Your task to perform on an android device: open device folders in google photos Image 0: 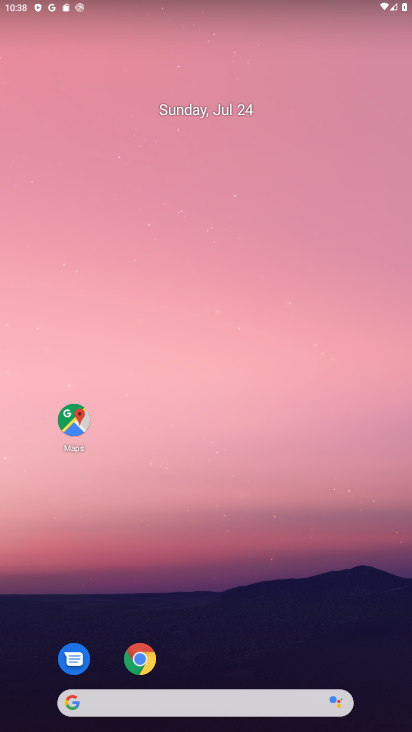
Step 0: drag from (198, 614) to (204, 257)
Your task to perform on an android device: open device folders in google photos Image 1: 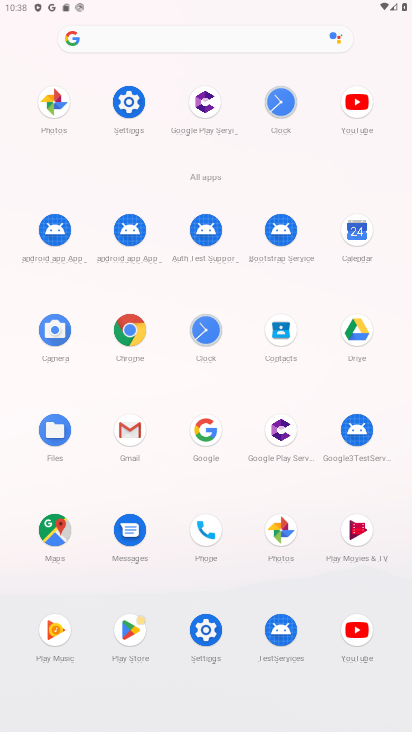
Step 1: click (271, 532)
Your task to perform on an android device: open device folders in google photos Image 2: 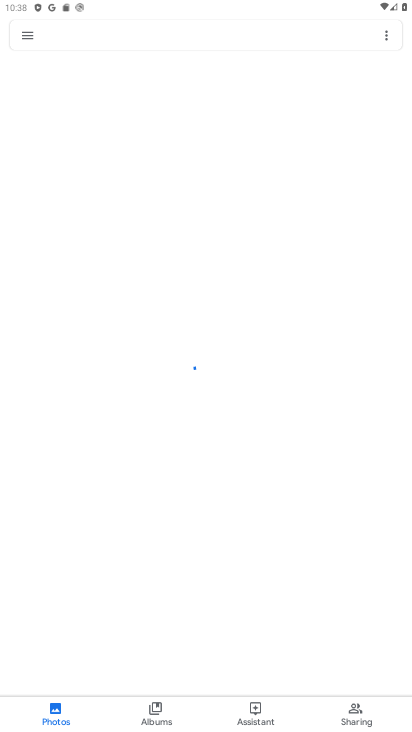
Step 2: click (162, 700)
Your task to perform on an android device: open device folders in google photos Image 3: 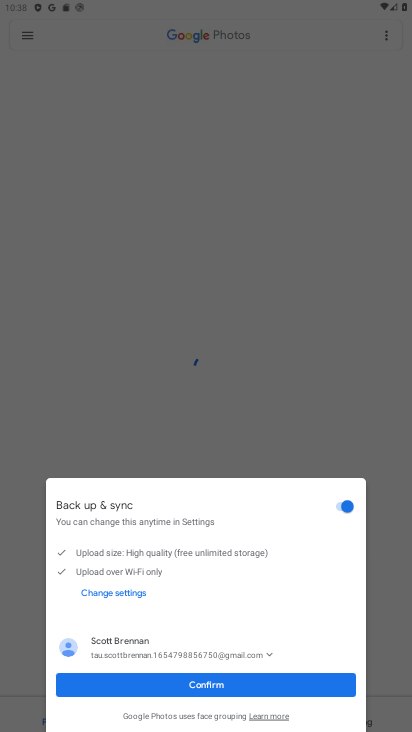
Step 3: click (193, 684)
Your task to perform on an android device: open device folders in google photos Image 4: 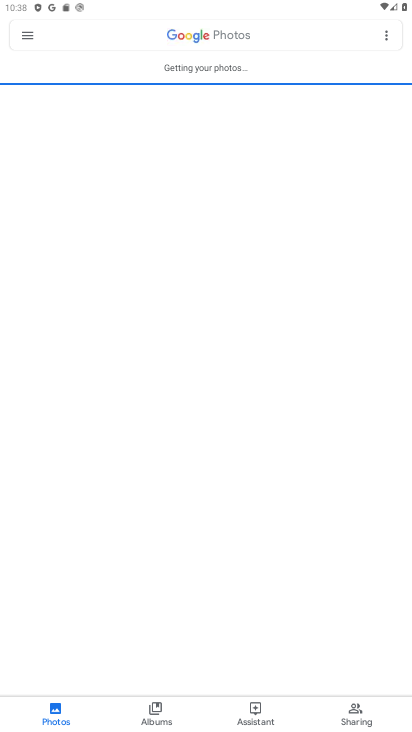
Step 4: click (138, 712)
Your task to perform on an android device: open device folders in google photos Image 5: 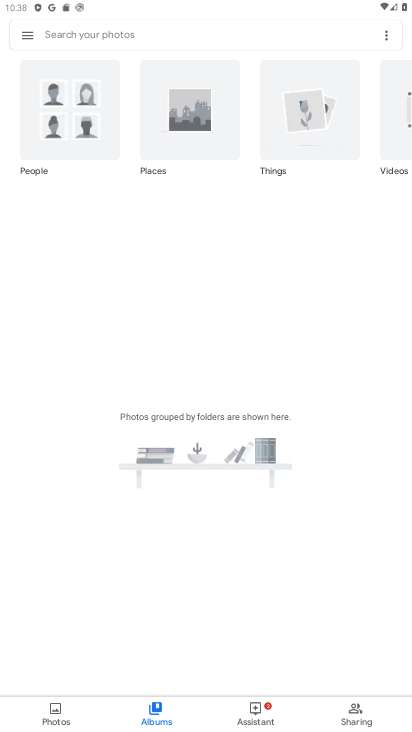
Step 5: click (53, 711)
Your task to perform on an android device: open device folders in google photos Image 6: 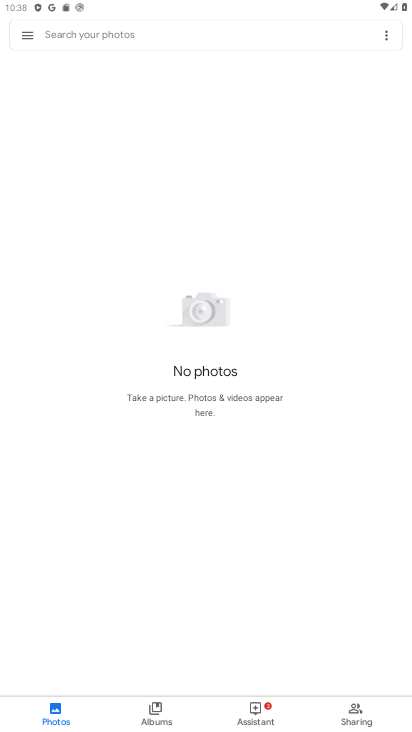
Step 6: task complete